Your task to perform on an android device: change your default location settings in chrome Image 0: 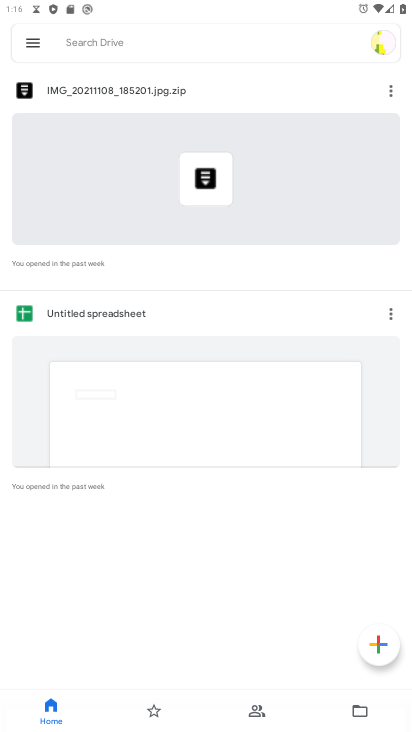
Step 0: press home button
Your task to perform on an android device: change your default location settings in chrome Image 1: 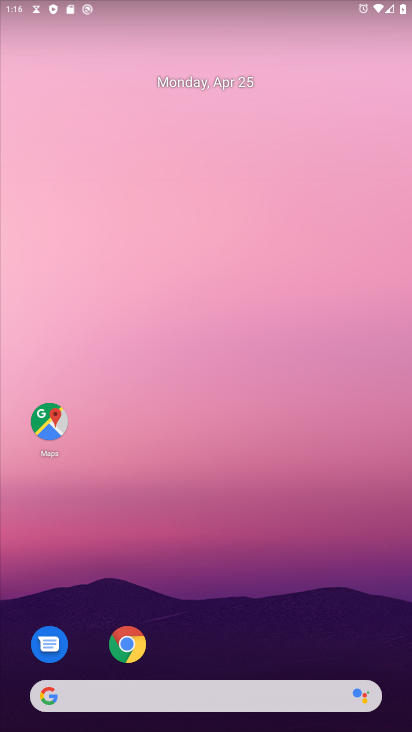
Step 1: click (143, 653)
Your task to perform on an android device: change your default location settings in chrome Image 2: 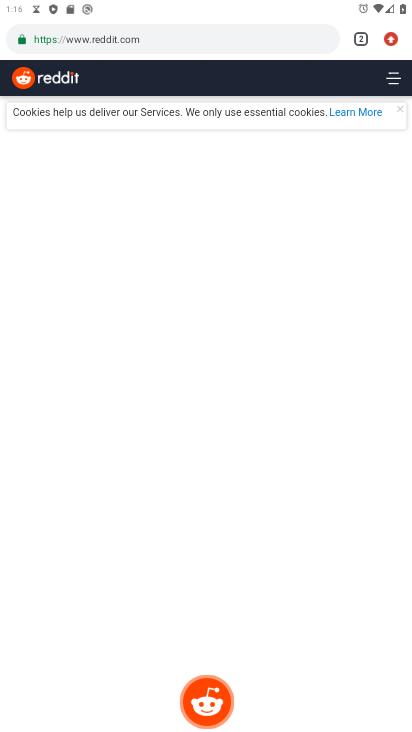
Step 2: drag from (389, 41) to (253, 515)
Your task to perform on an android device: change your default location settings in chrome Image 3: 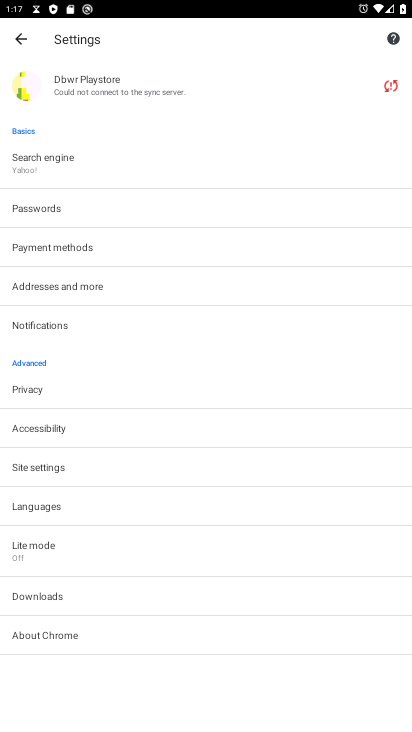
Step 3: click (32, 469)
Your task to perform on an android device: change your default location settings in chrome Image 4: 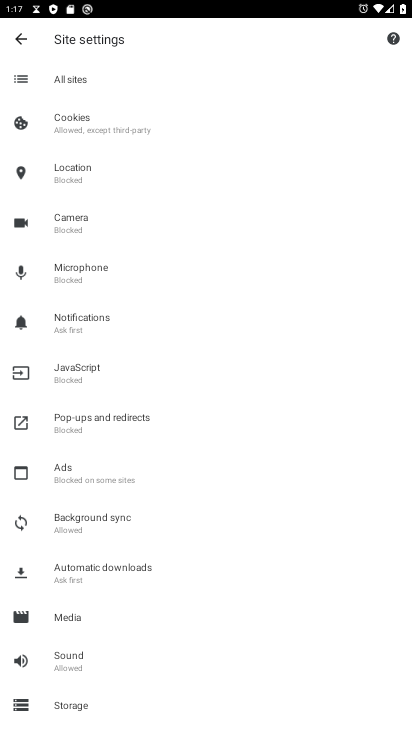
Step 4: click (71, 161)
Your task to perform on an android device: change your default location settings in chrome Image 5: 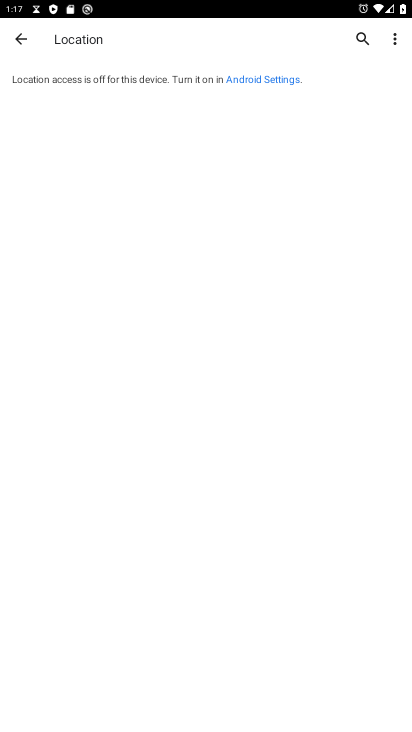
Step 5: click (246, 80)
Your task to perform on an android device: change your default location settings in chrome Image 6: 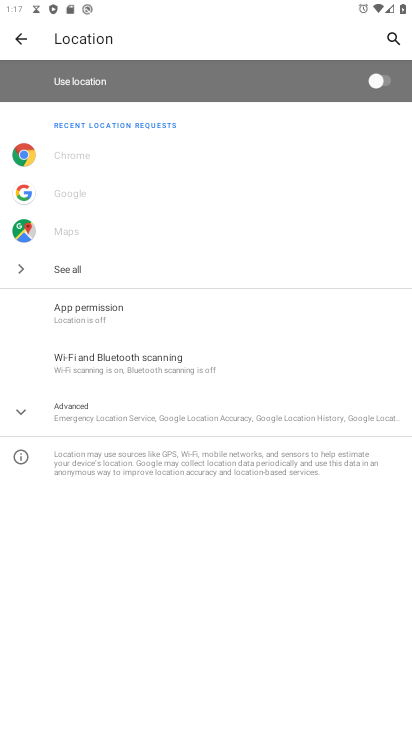
Step 6: click (383, 73)
Your task to perform on an android device: change your default location settings in chrome Image 7: 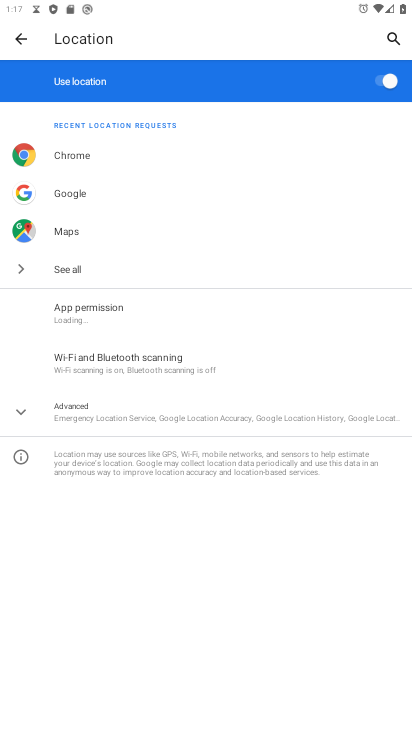
Step 7: click (17, 45)
Your task to perform on an android device: change your default location settings in chrome Image 8: 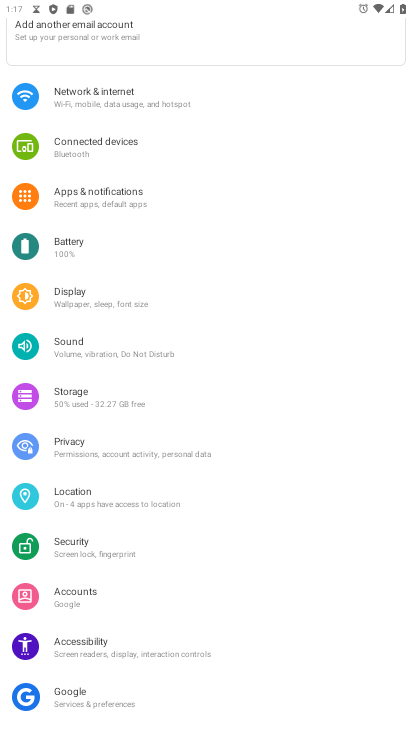
Step 8: task complete